Your task to perform on an android device: change keyboard looks Image 0: 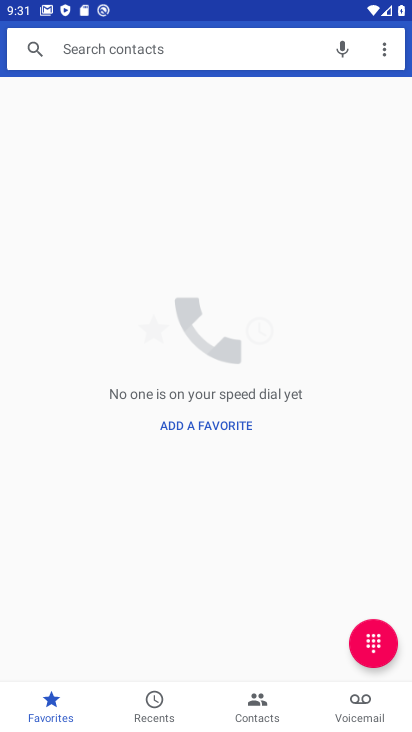
Step 0: press home button
Your task to perform on an android device: change keyboard looks Image 1: 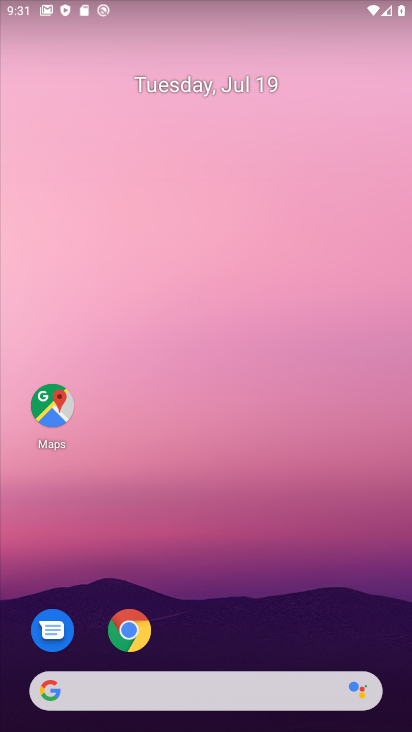
Step 1: drag from (199, 657) to (195, 131)
Your task to perform on an android device: change keyboard looks Image 2: 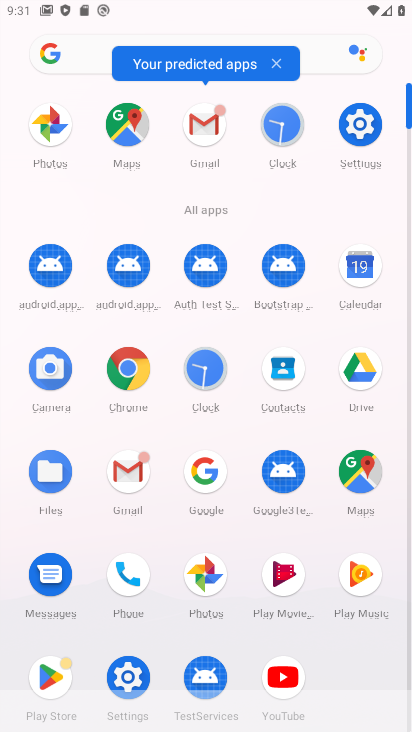
Step 2: click (134, 659)
Your task to perform on an android device: change keyboard looks Image 3: 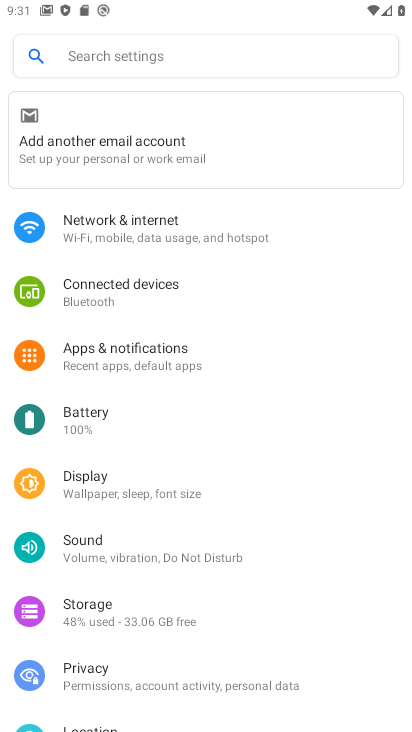
Step 3: drag from (143, 615) to (124, 423)
Your task to perform on an android device: change keyboard looks Image 4: 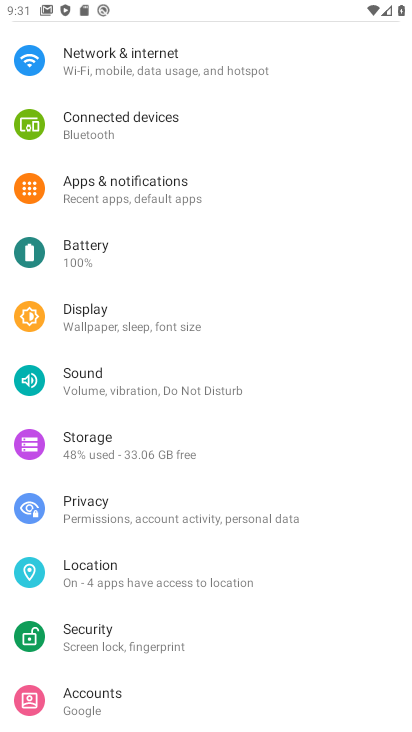
Step 4: drag from (131, 517) to (88, 14)
Your task to perform on an android device: change keyboard looks Image 5: 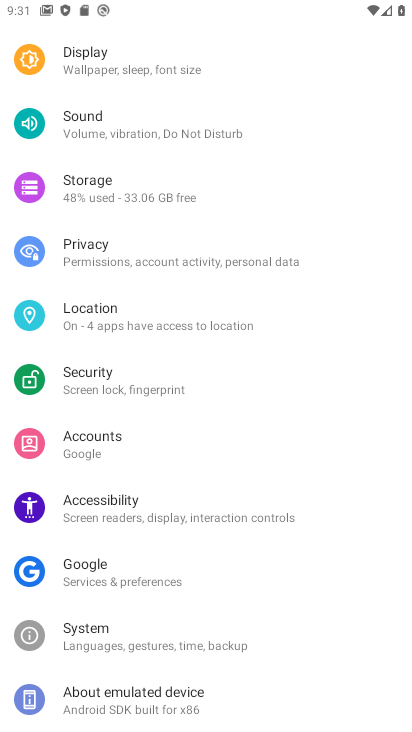
Step 5: click (124, 631)
Your task to perform on an android device: change keyboard looks Image 6: 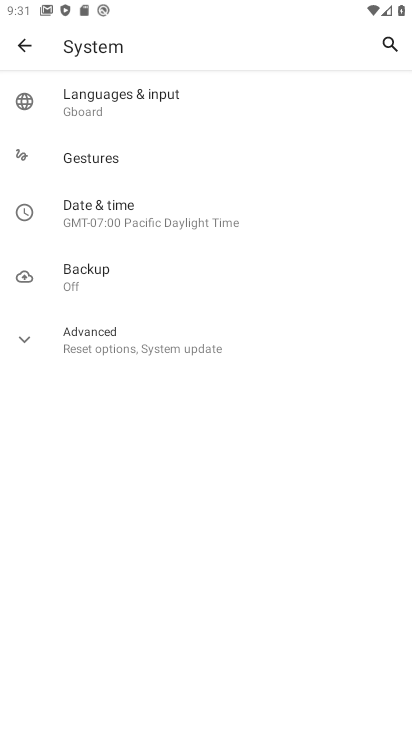
Step 6: click (121, 107)
Your task to perform on an android device: change keyboard looks Image 7: 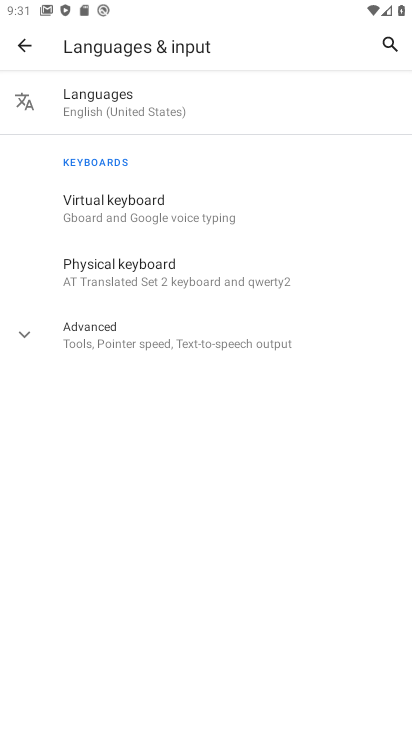
Step 7: click (93, 197)
Your task to perform on an android device: change keyboard looks Image 8: 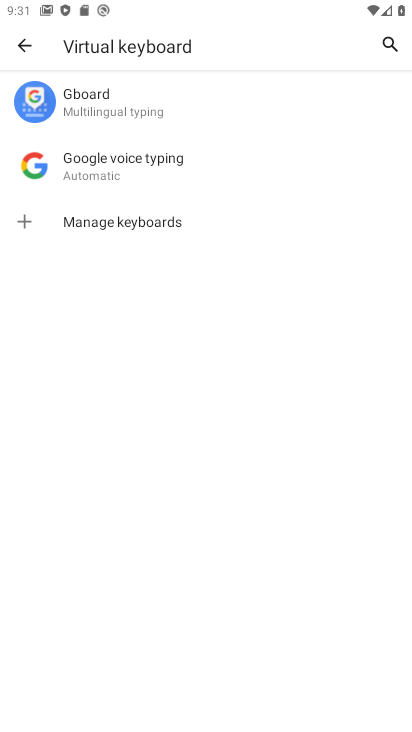
Step 8: click (69, 86)
Your task to perform on an android device: change keyboard looks Image 9: 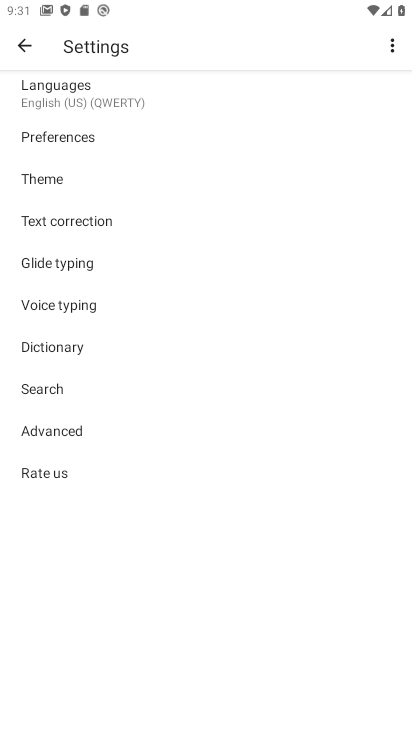
Step 9: click (34, 173)
Your task to perform on an android device: change keyboard looks Image 10: 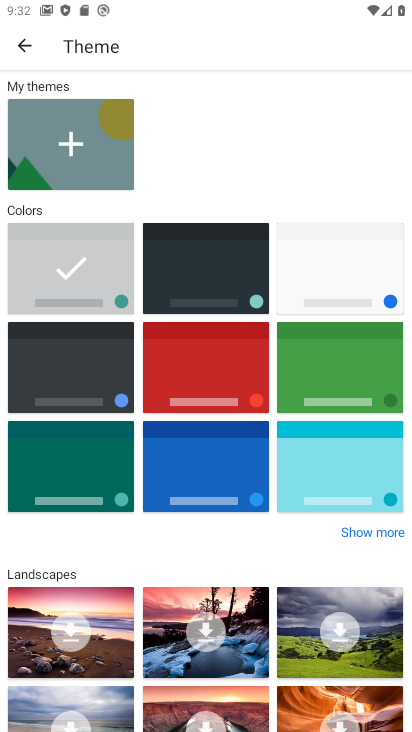
Step 10: click (201, 260)
Your task to perform on an android device: change keyboard looks Image 11: 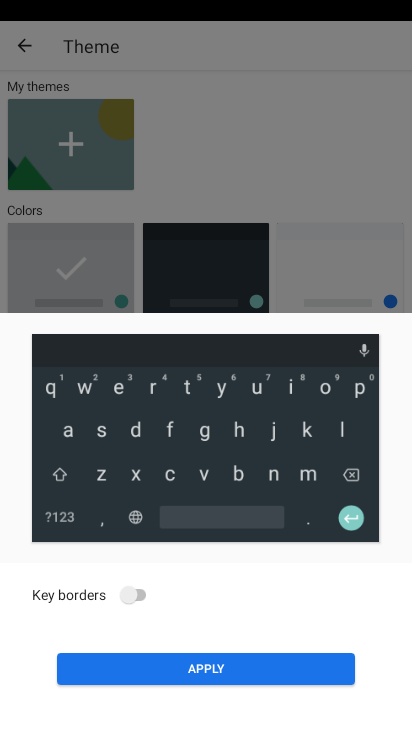
Step 11: click (210, 660)
Your task to perform on an android device: change keyboard looks Image 12: 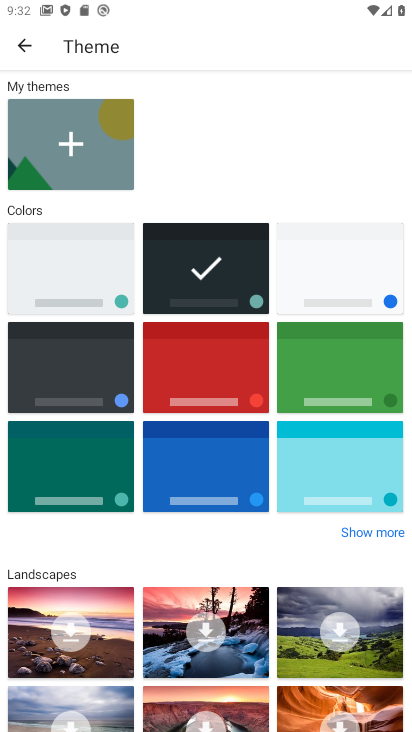
Step 12: task complete